Your task to perform on an android device: Open settings on Google Maps Image 0: 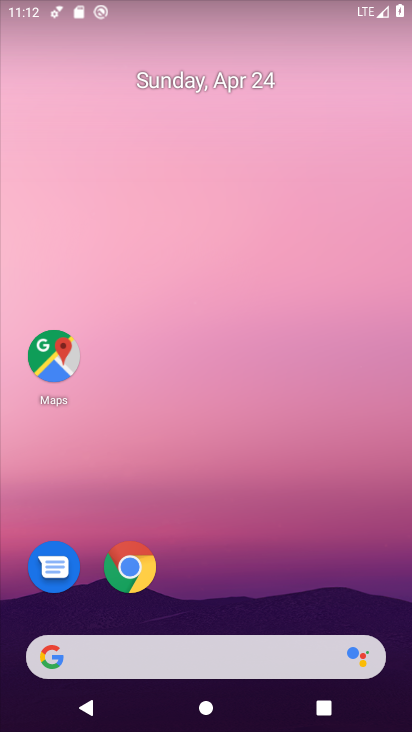
Step 0: drag from (341, 577) to (361, 24)
Your task to perform on an android device: Open settings on Google Maps Image 1: 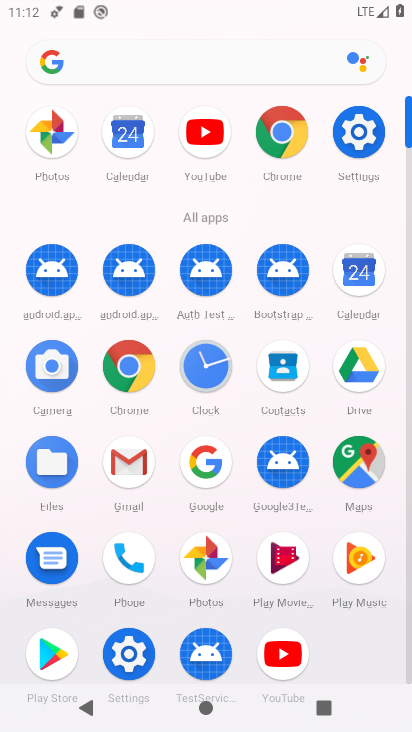
Step 1: click (351, 467)
Your task to perform on an android device: Open settings on Google Maps Image 2: 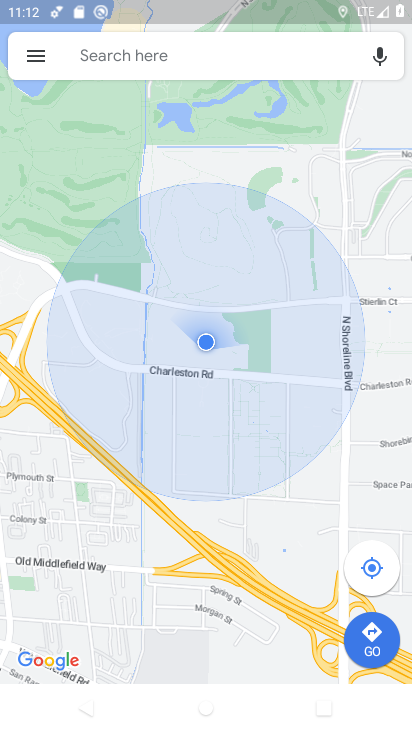
Step 2: click (45, 55)
Your task to perform on an android device: Open settings on Google Maps Image 3: 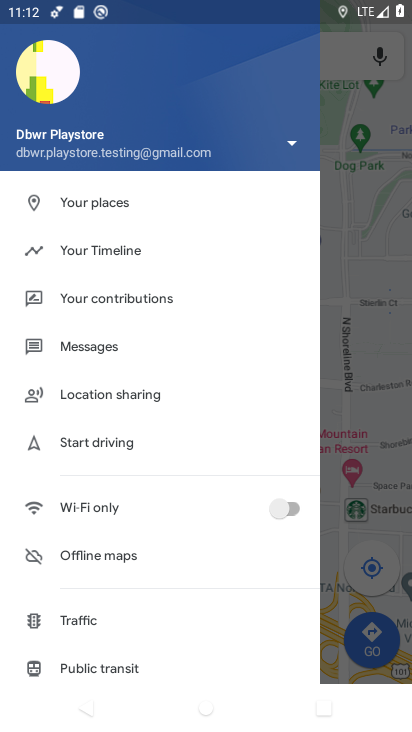
Step 3: drag from (163, 529) to (184, 254)
Your task to perform on an android device: Open settings on Google Maps Image 4: 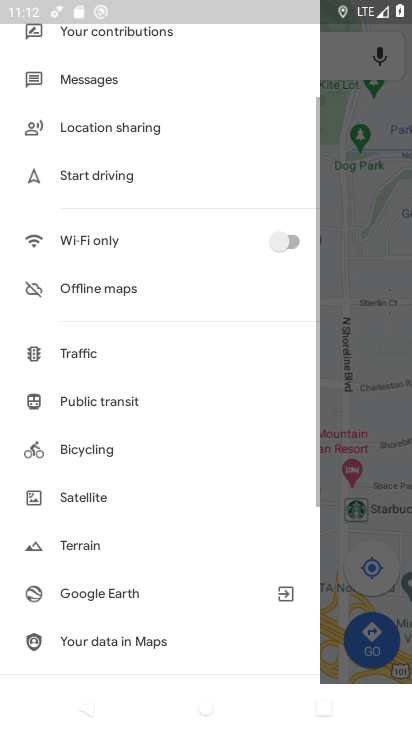
Step 4: drag from (148, 577) to (213, 258)
Your task to perform on an android device: Open settings on Google Maps Image 5: 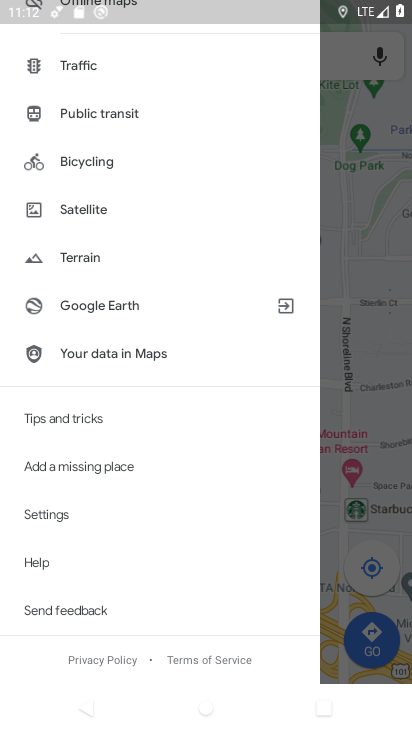
Step 5: click (111, 514)
Your task to perform on an android device: Open settings on Google Maps Image 6: 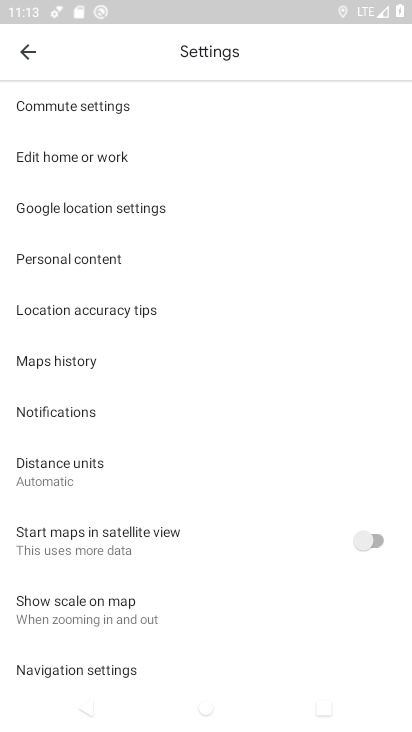
Step 6: task complete